Your task to perform on an android device: Open ESPN.com Image 0: 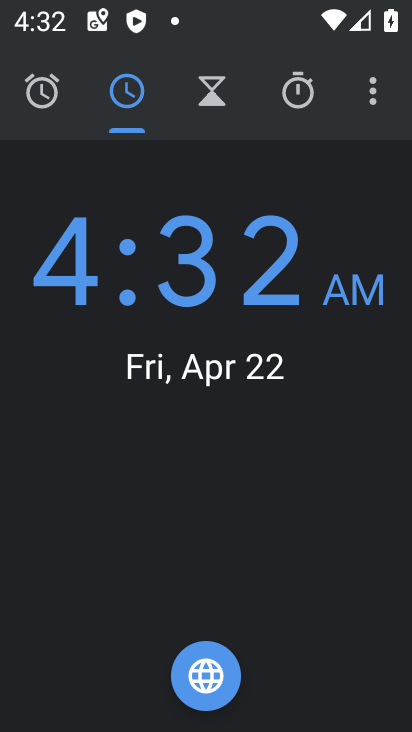
Step 0: press home button
Your task to perform on an android device: Open ESPN.com Image 1: 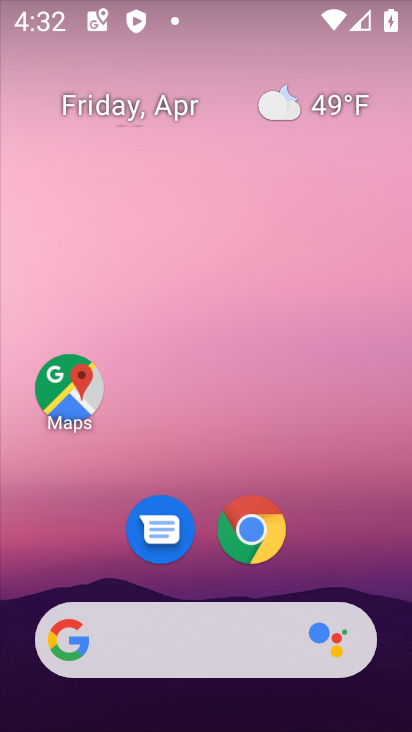
Step 1: click (252, 533)
Your task to perform on an android device: Open ESPN.com Image 2: 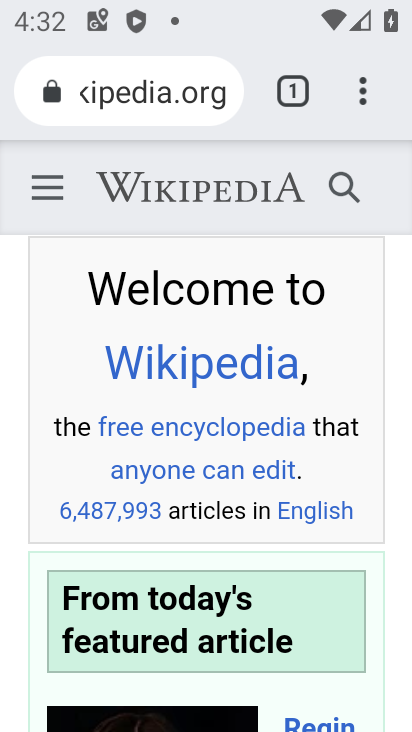
Step 2: drag from (362, 92) to (98, 183)
Your task to perform on an android device: Open ESPN.com Image 3: 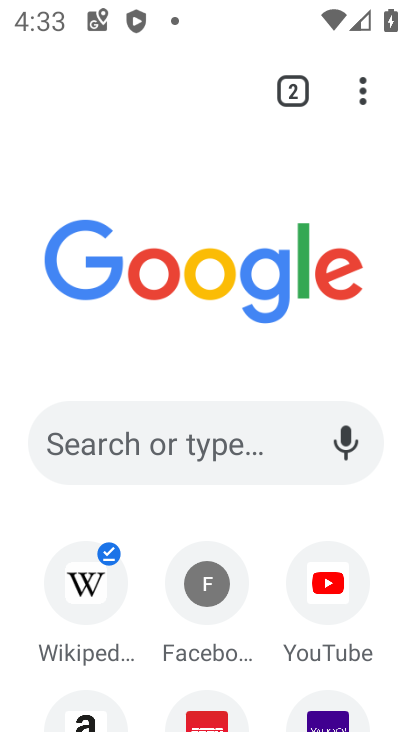
Step 3: click (200, 448)
Your task to perform on an android device: Open ESPN.com Image 4: 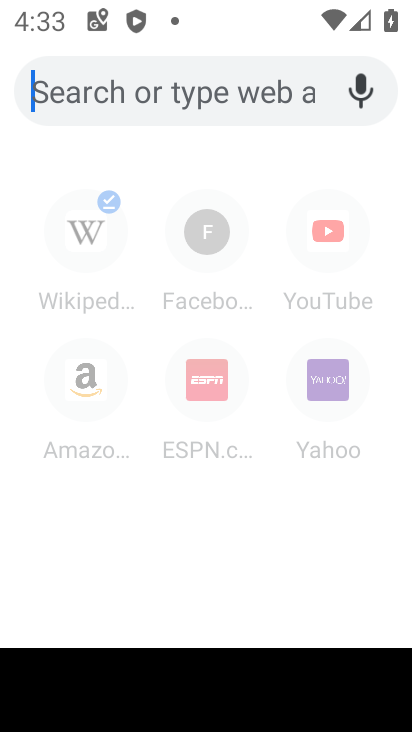
Step 4: type "ESPN.com"
Your task to perform on an android device: Open ESPN.com Image 5: 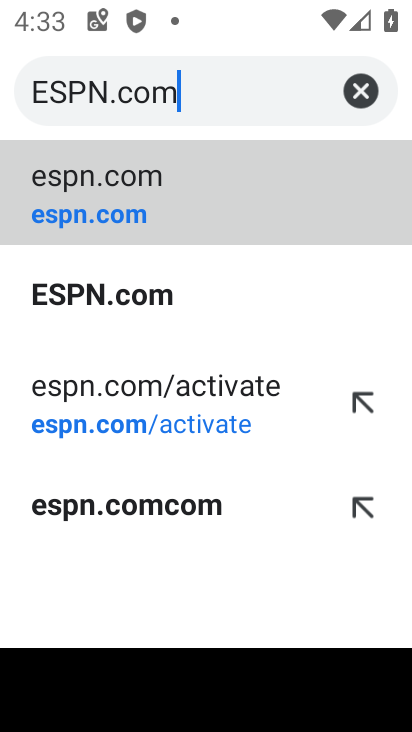
Step 5: click (96, 198)
Your task to perform on an android device: Open ESPN.com Image 6: 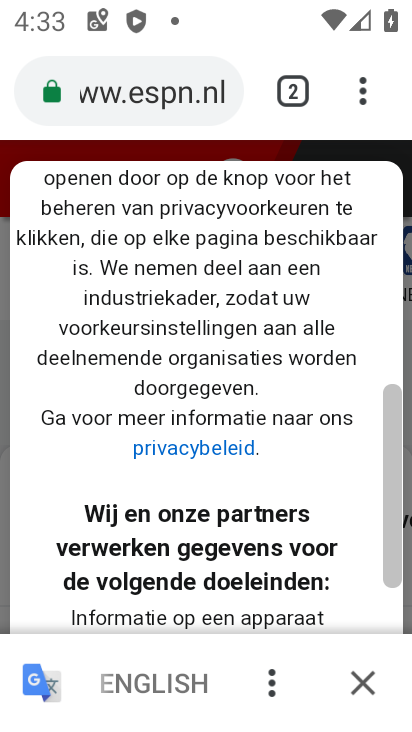
Step 6: task complete